Your task to perform on an android device: Open the map Image 0: 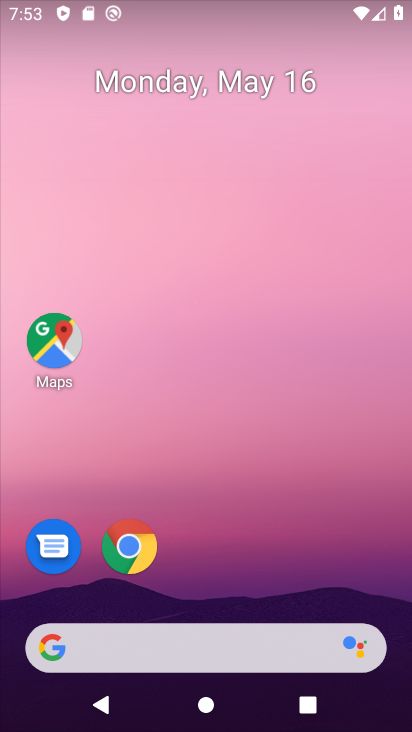
Step 0: click (37, 324)
Your task to perform on an android device: Open the map Image 1: 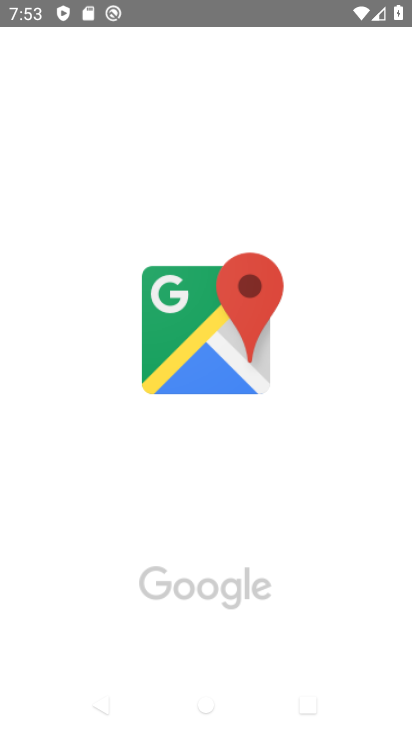
Step 1: task complete